Your task to perform on an android device: Open internet settings Image 0: 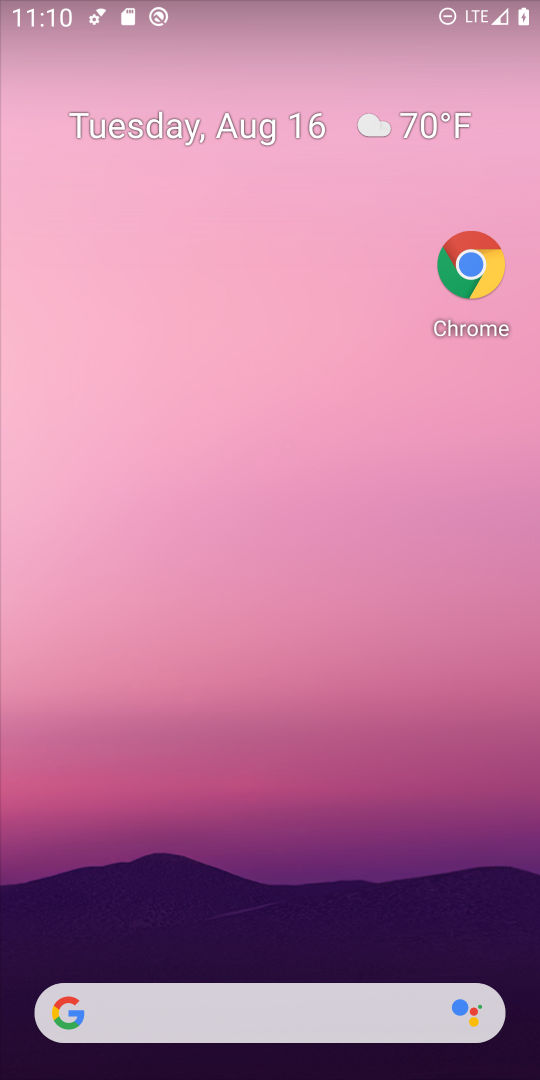
Step 0: drag from (307, 432) to (315, 90)
Your task to perform on an android device: Open internet settings Image 1: 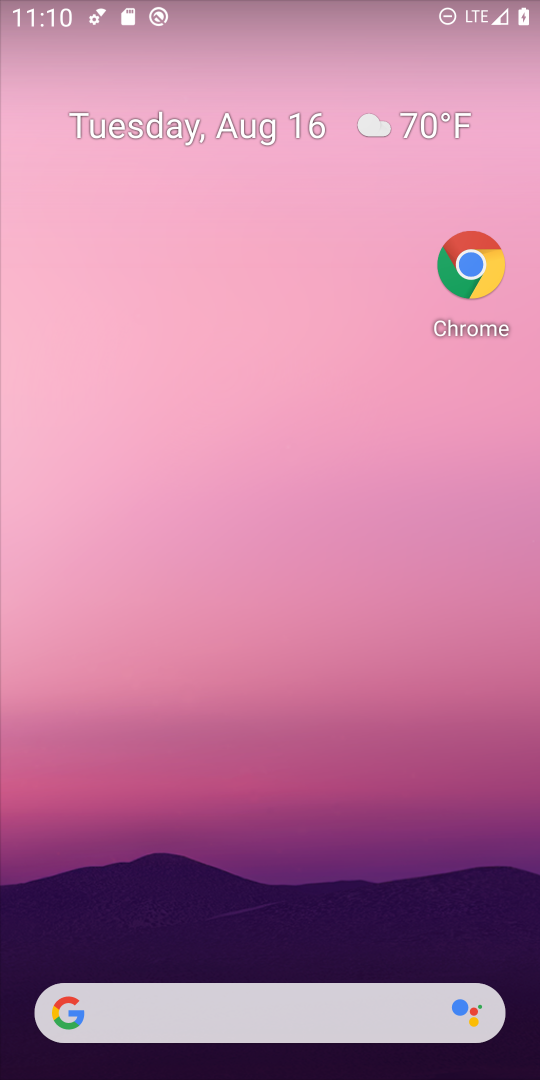
Step 1: drag from (304, 847) to (298, 136)
Your task to perform on an android device: Open internet settings Image 2: 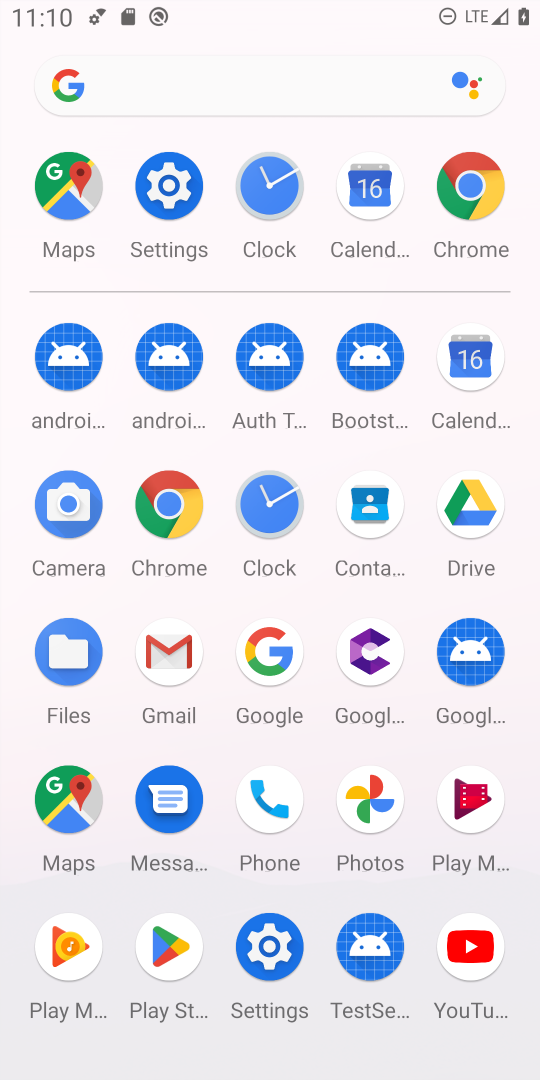
Step 2: click (173, 219)
Your task to perform on an android device: Open internet settings Image 3: 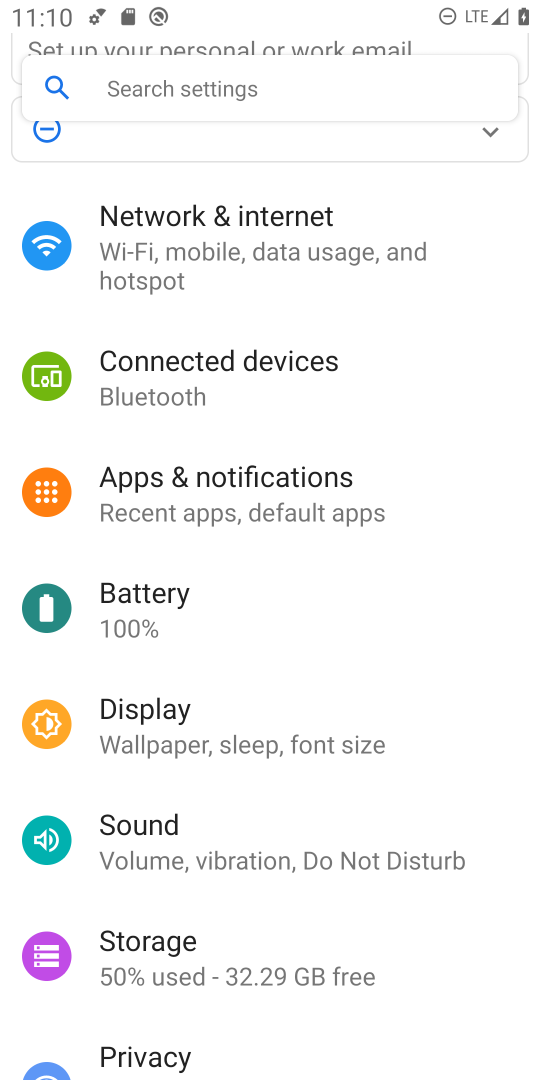
Step 3: click (329, 246)
Your task to perform on an android device: Open internet settings Image 4: 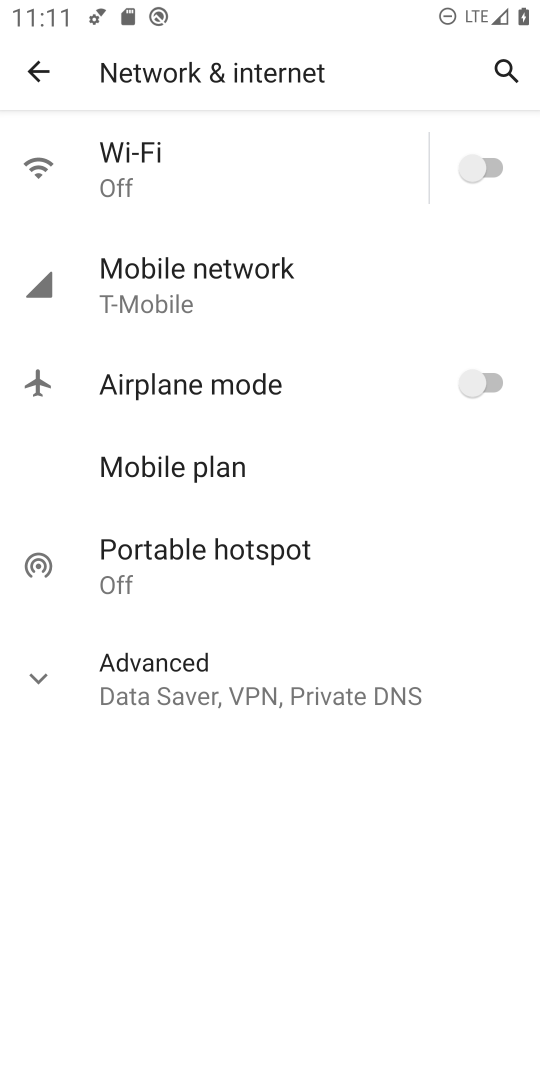
Step 4: click (293, 278)
Your task to perform on an android device: Open internet settings Image 5: 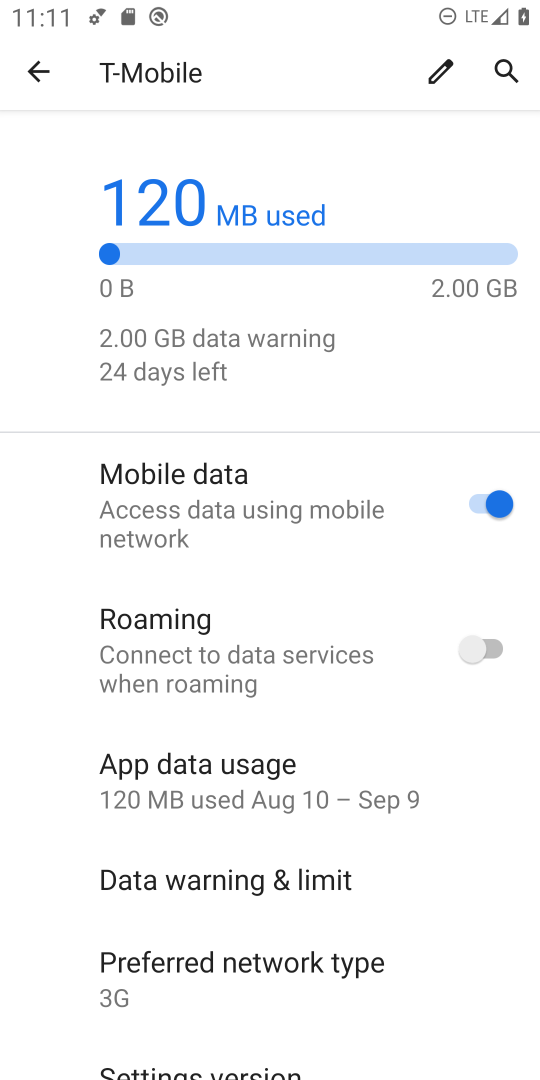
Step 5: click (311, 786)
Your task to perform on an android device: Open internet settings Image 6: 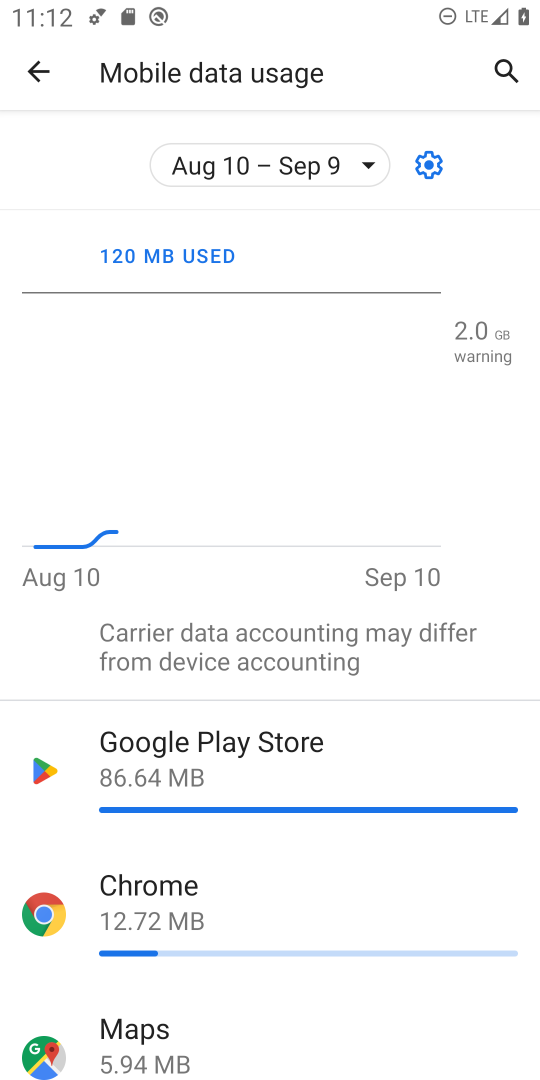
Step 6: task complete